Your task to perform on an android device: Clear the shopping cart on walmart. Search for "energizer triple a" on walmart, select the first entry, add it to the cart, then select checkout. Image 0: 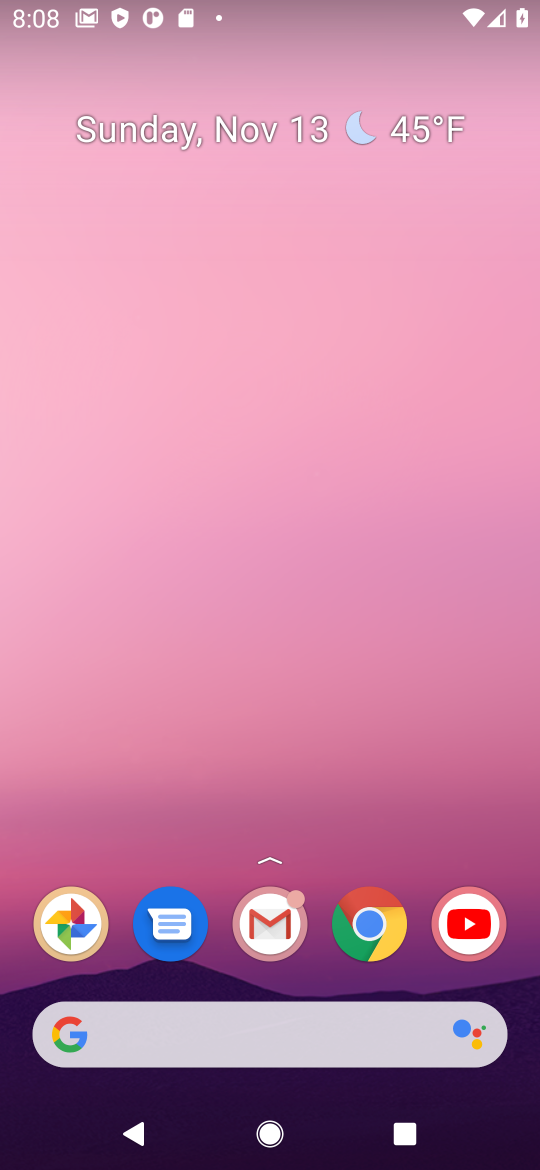
Step 0: press home button
Your task to perform on an android device: Clear the shopping cart on walmart. Search for "energizer triple a" on walmart, select the first entry, add it to the cart, then select checkout. Image 1: 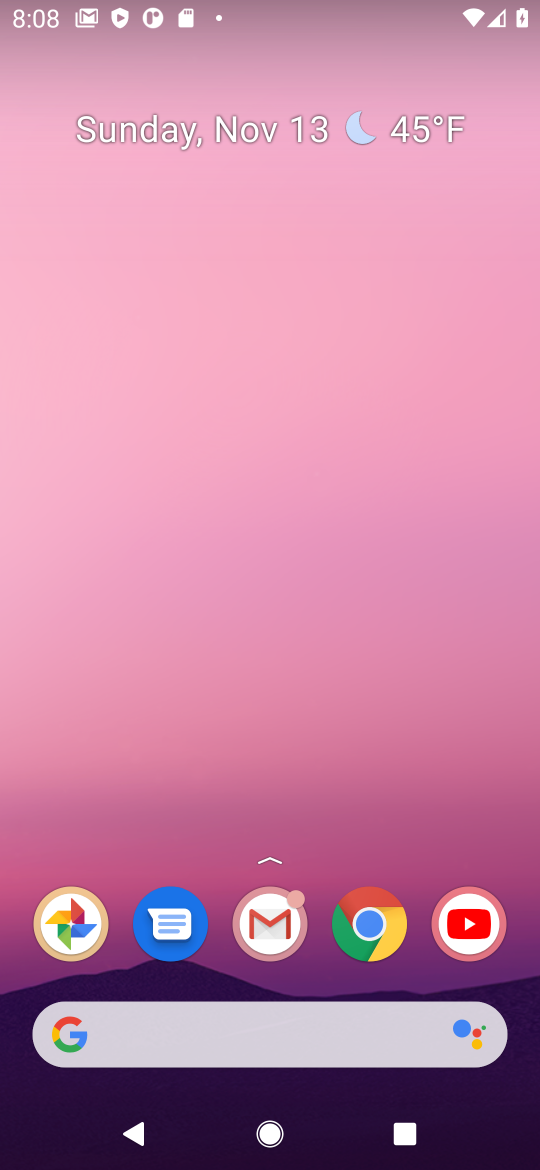
Step 1: click (73, 1031)
Your task to perform on an android device: Clear the shopping cart on walmart. Search for "energizer triple a" on walmart, select the first entry, add it to the cart, then select checkout. Image 2: 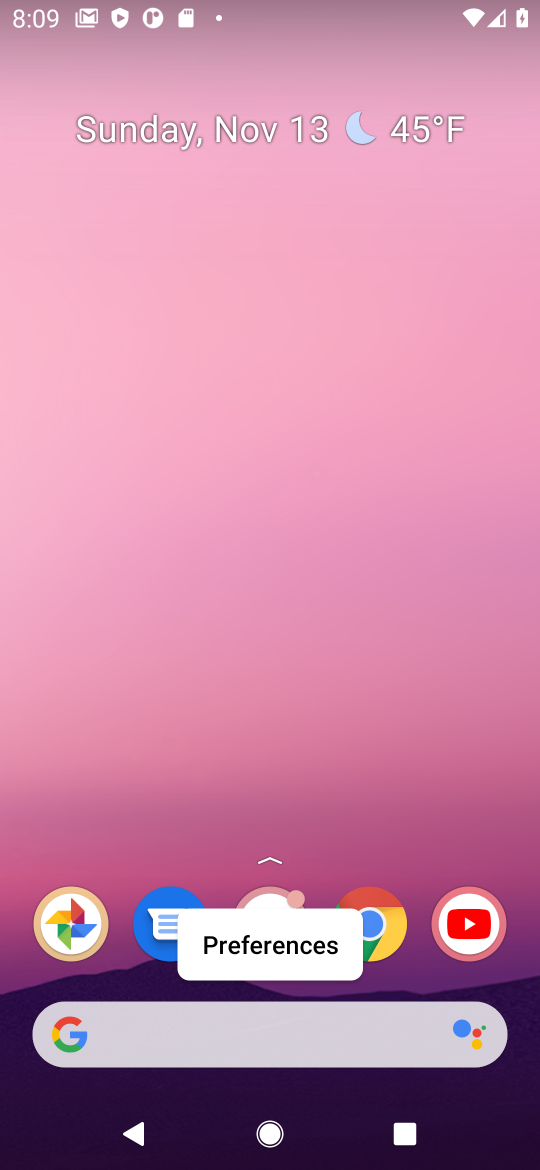
Step 2: click (67, 1031)
Your task to perform on an android device: Clear the shopping cart on walmart. Search for "energizer triple a" on walmart, select the first entry, add it to the cart, then select checkout. Image 3: 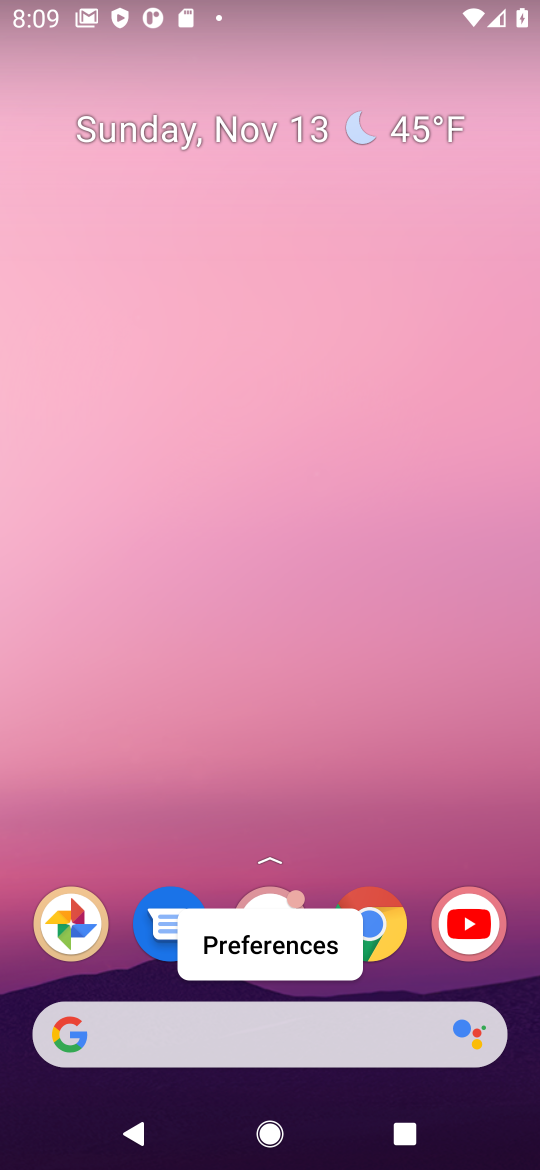
Step 3: click (61, 1037)
Your task to perform on an android device: Clear the shopping cart on walmart. Search for "energizer triple a" on walmart, select the first entry, add it to the cart, then select checkout. Image 4: 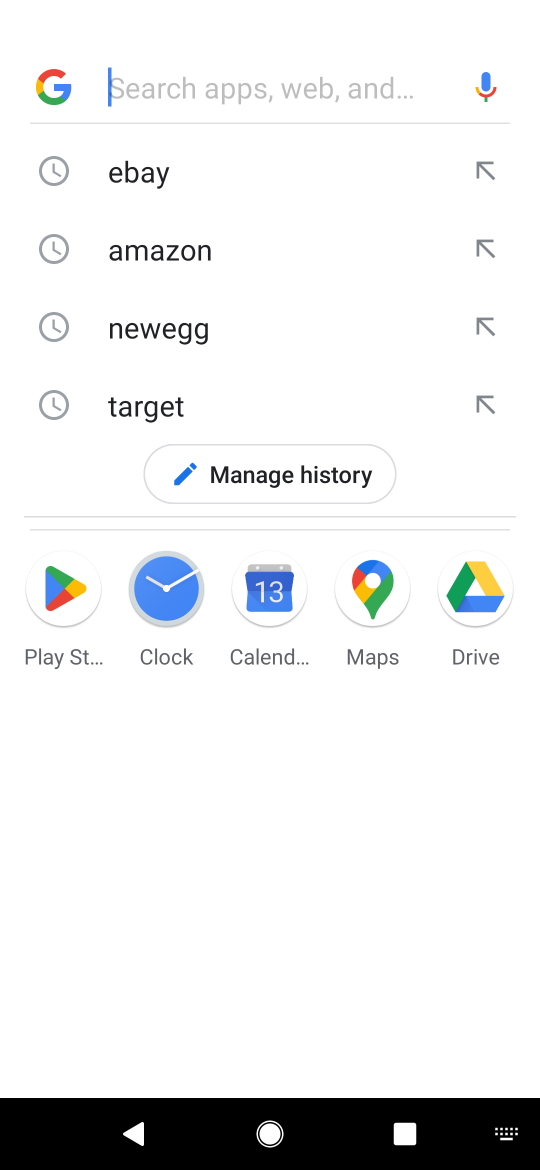
Step 4: type " walmart"
Your task to perform on an android device: Clear the shopping cart on walmart. Search for "energizer triple a" on walmart, select the first entry, add it to the cart, then select checkout. Image 5: 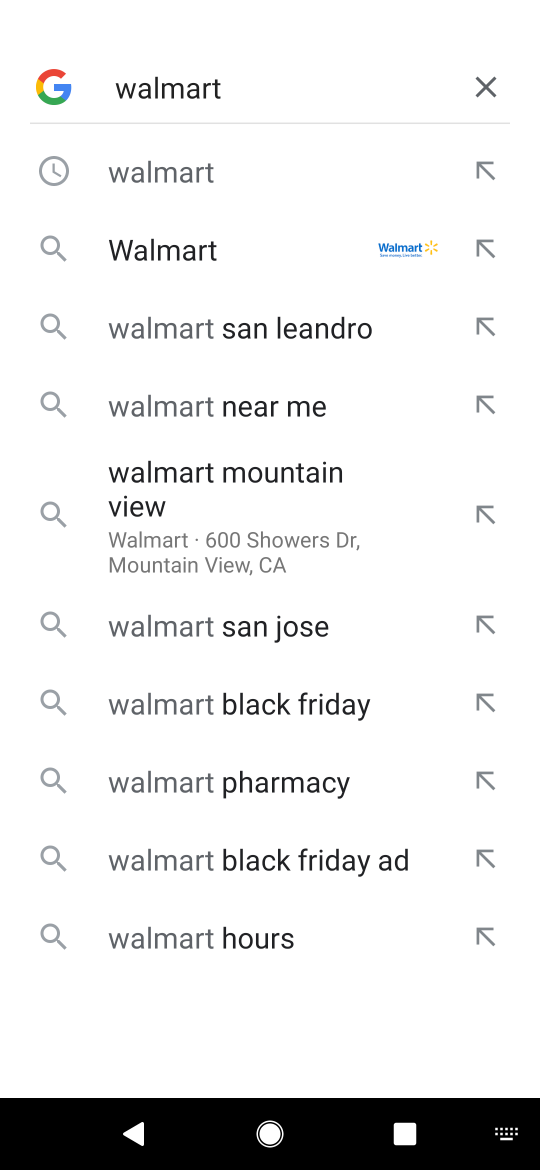
Step 5: press enter
Your task to perform on an android device: Clear the shopping cart on walmart. Search for "energizer triple a" on walmart, select the first entry, add it to the cart, then select checkout. Image 6: 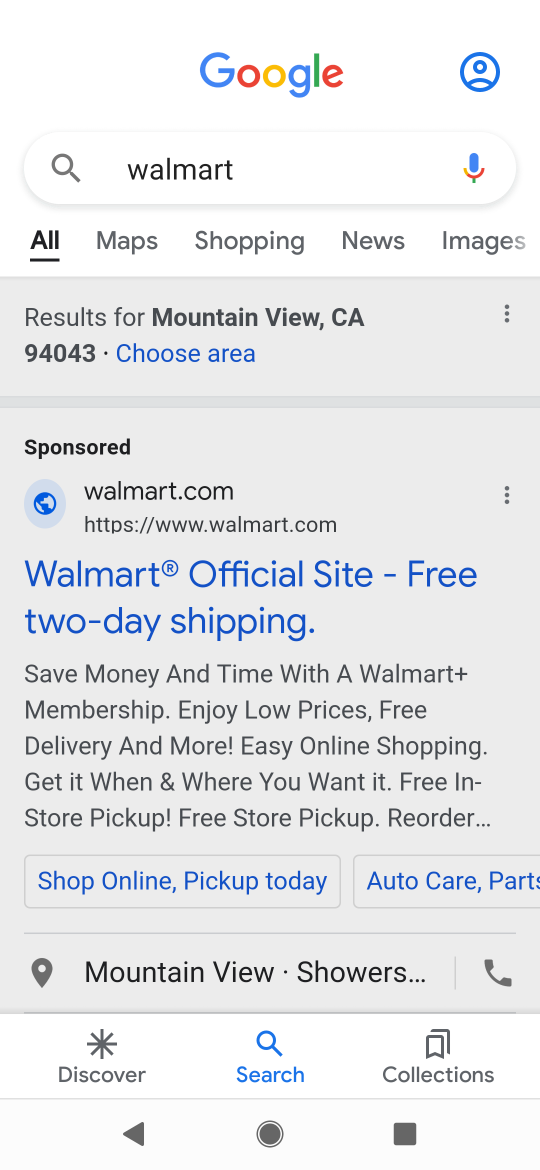
Step 6: drag from (218, 882) to (448, 385)
Your task to perform on an android device: Clear the shopping cart on walmart. Search for "energizer triple a" on walmart, select the first entry, add it to the cart, then select checkout. Image 7: 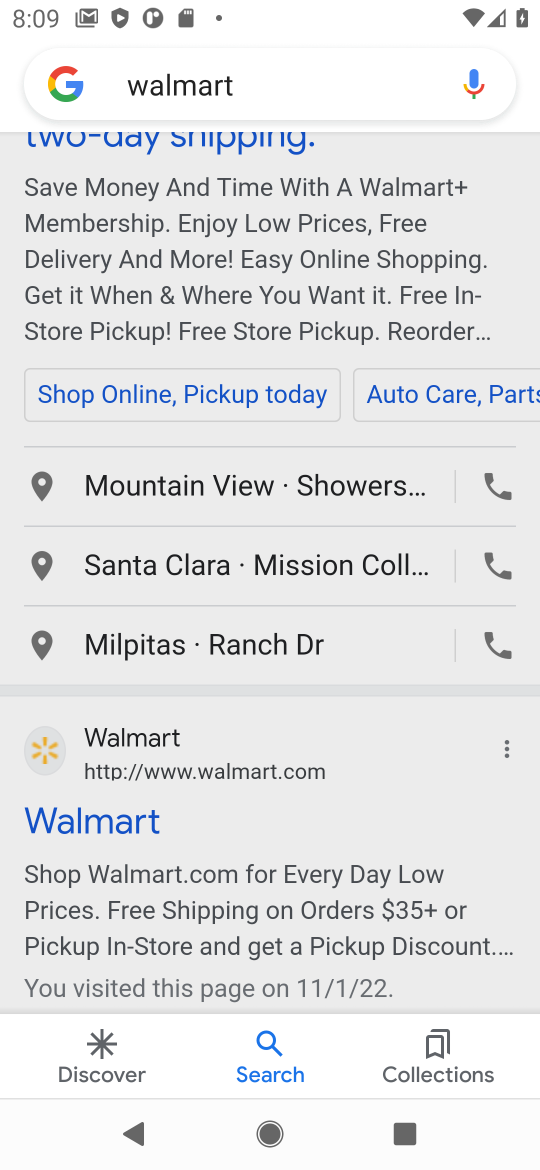
Step 7: click (120, 822)
Your task to perform on an android device: Clear the shopping cart on walmart. Search for "energizer triple a" on walmart, select the first entry, add it to the cart, then select checkout. Image 8: 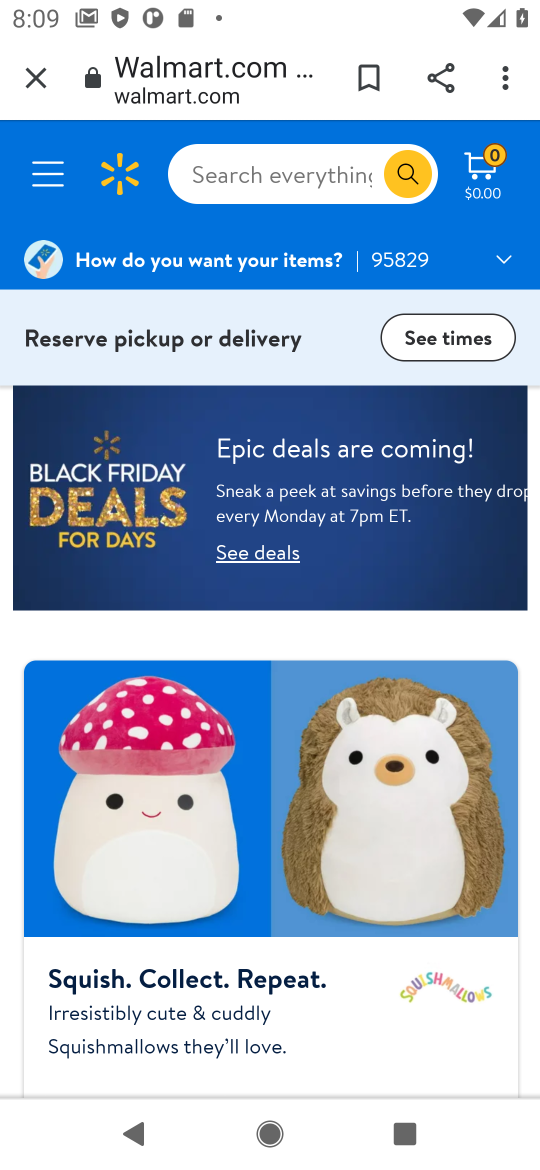
Step 8: click (321, 175)
Your task to perform on an android device: Clear the shopping cart on walmart. Search for "energizer triple a" on walmart, select the first entry, add it to the cart, then select checkout. Image 9: 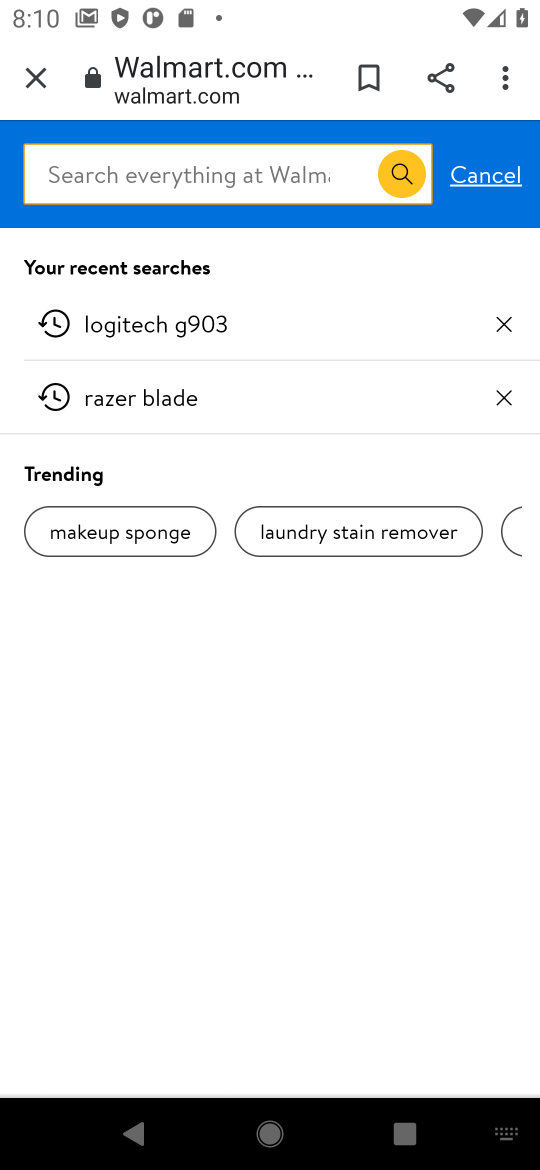
Step 9: type "energizer triple a"
Your task to perform on an android device: Clear the shopping cart on walmart. Search for "energizer triple a" on walmart, select the first entry, add it to the cart, then select checkout. Image 10: 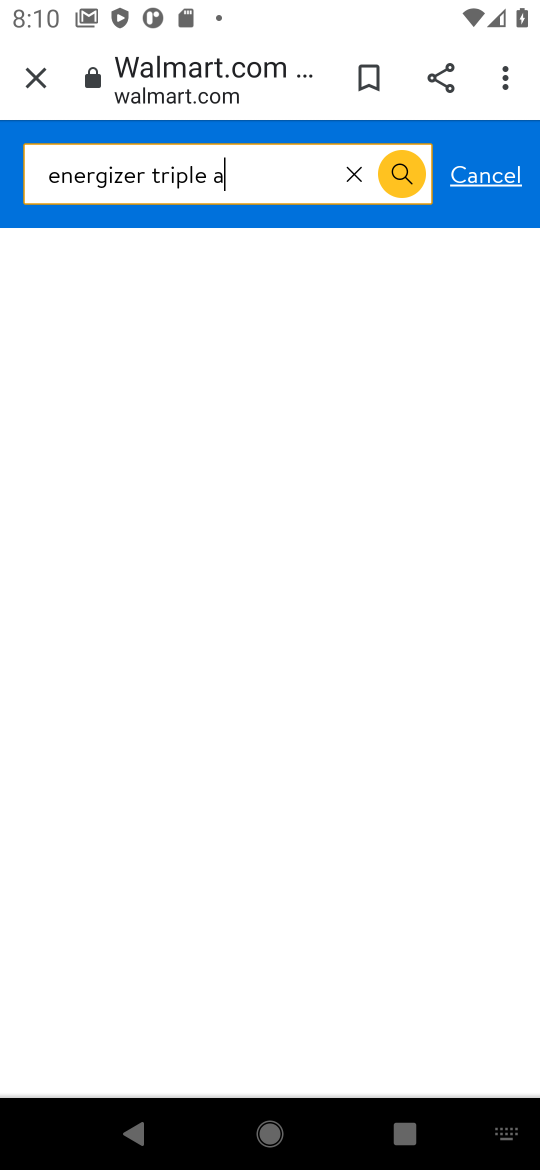
Step 10: press enter
Your task to perform on an android device: Clear the shopping cart on walmart. Search for "energizer triple a" on walmart, select the first entry, add it to the cart, then select checkout. Image 11: 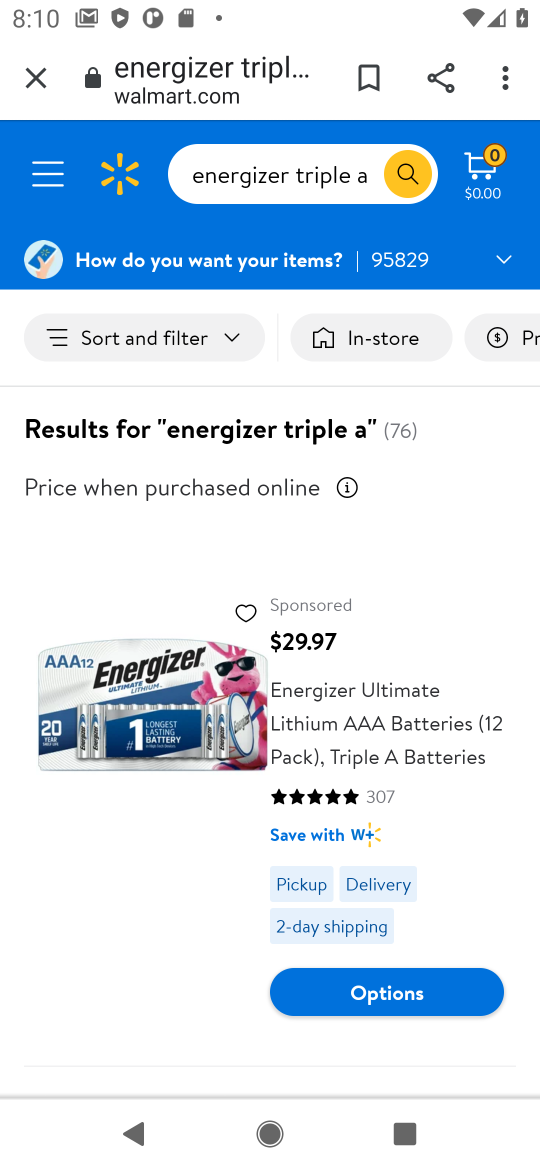
Step 11: task complete